Your task to perform on an android device: Go to Reddit.com Image 0: 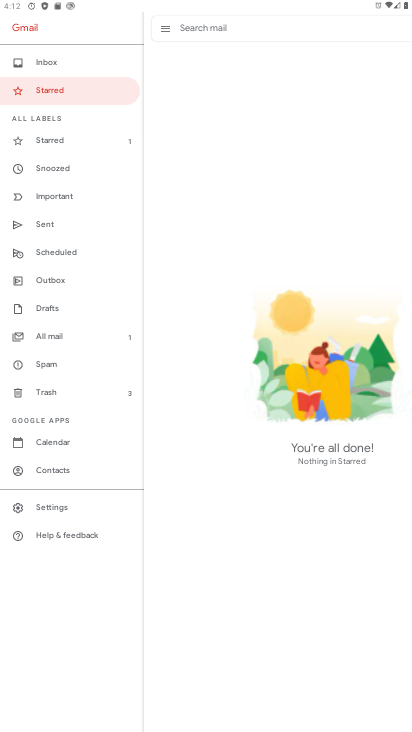
Step 0: click (292, 243)
Your task to perform on an android device: Go to Reddit.com Image 1: 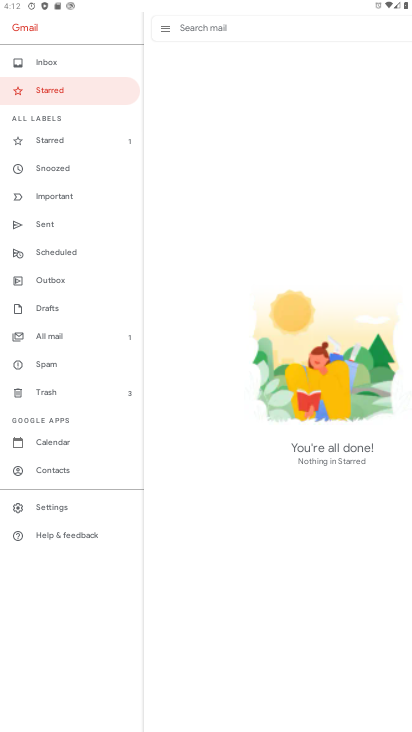
Step 1: press home button
Your task to perform on an android device: Go to Reddit.com Image 2: 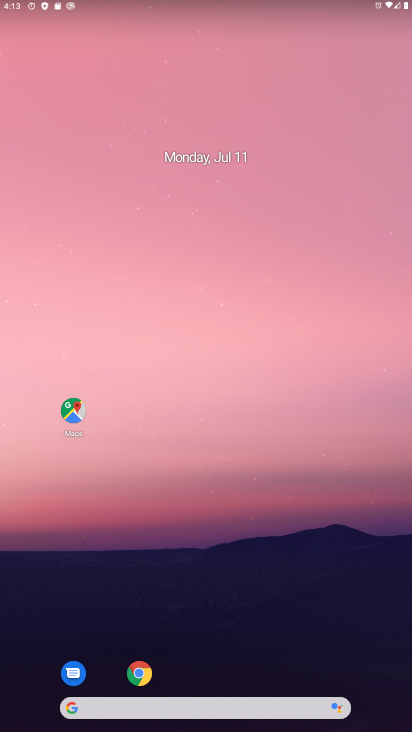
Step 2: click (142, 677)
Your task to perform on an android device: Go to Reddit.com Image 3: 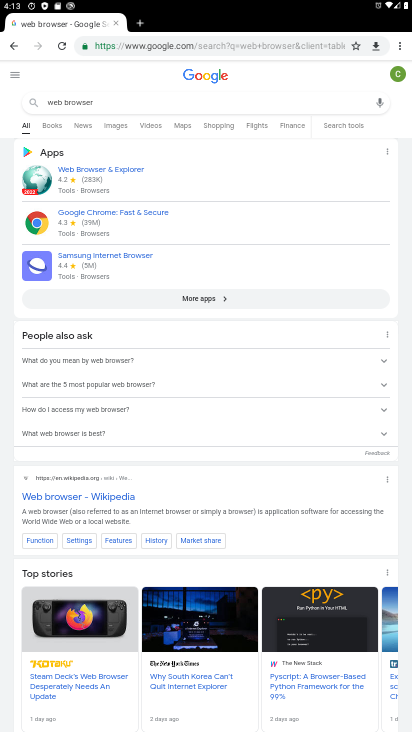
Step 3: click (135, 103)
Your task to perform on an android device: Go to Reddit.com Image 4: 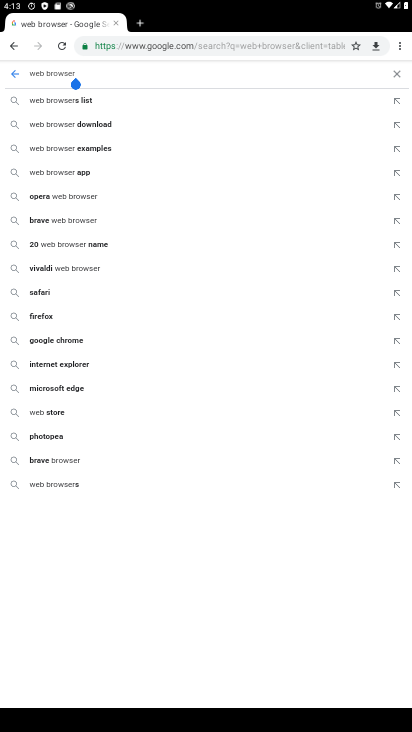
Step 4: click (394, 74)
Your task to perform on an android device: Go to Reddit.com Image 5: 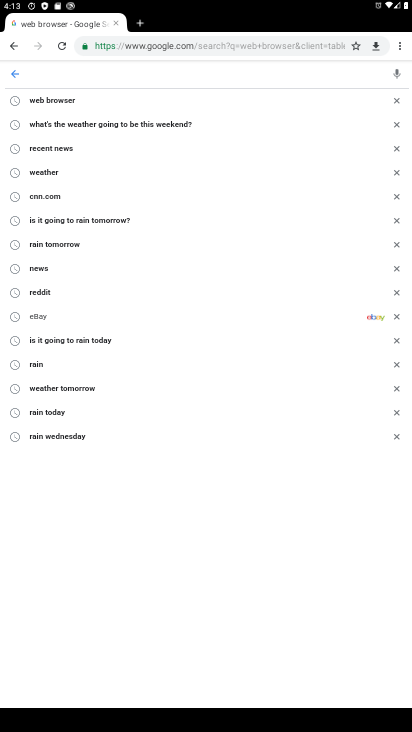
Step 5: type "Reddit.com"
Your task to perform on an android device: Go to Reddit.com Image 6: 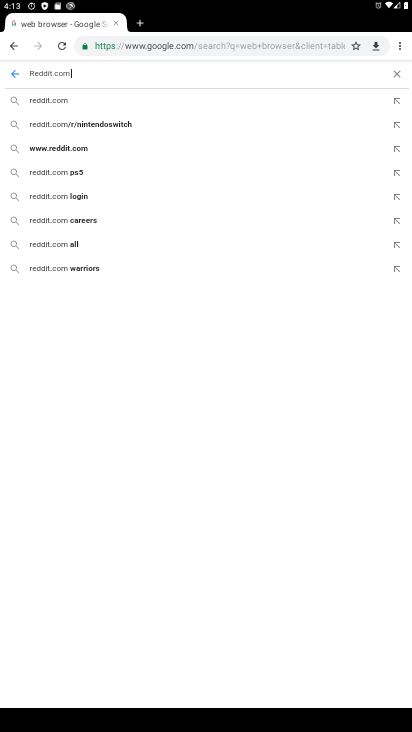
Step 6: click (53, 95)
Your task to perform on an android device: Go to Reddit.com Image 7: 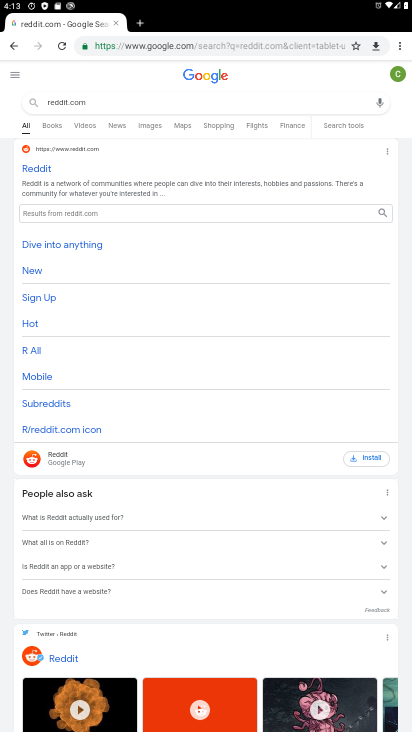
Step 7: task complete